Your task to perform on an android device: all mails in gmail Image 0: 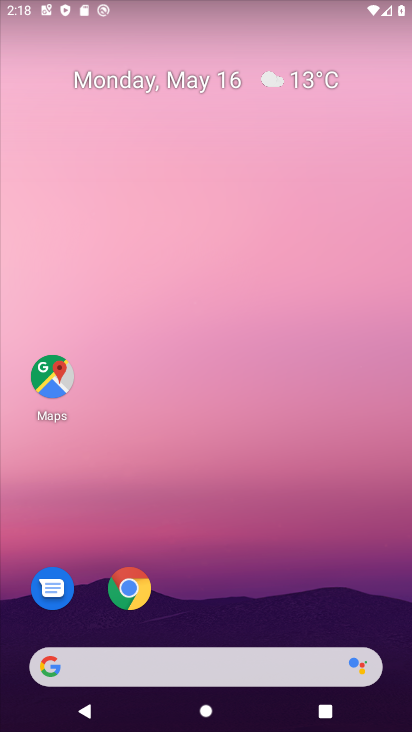
Step 0: drag from (243, 635) to (223, 16)
Your task to perform on an android device: all mails in gmail Image 1: 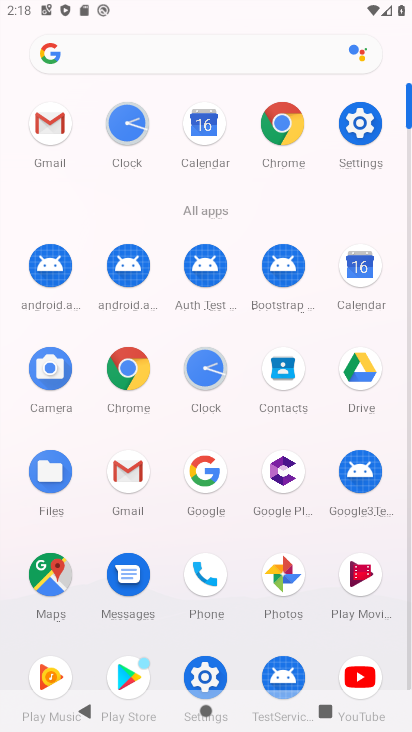
Step 1: click (128, 507)
Your task to perform on an android device: all mails in gmail Image 2: 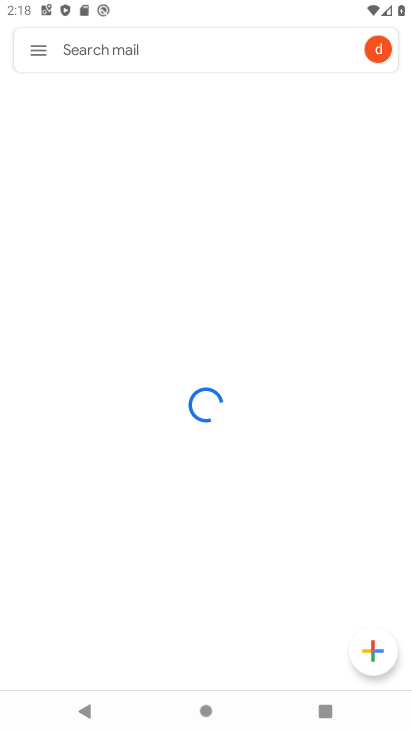
Step 2: click (40, 48)
Your task to perform on an android device: all mails in gmail Image 3: 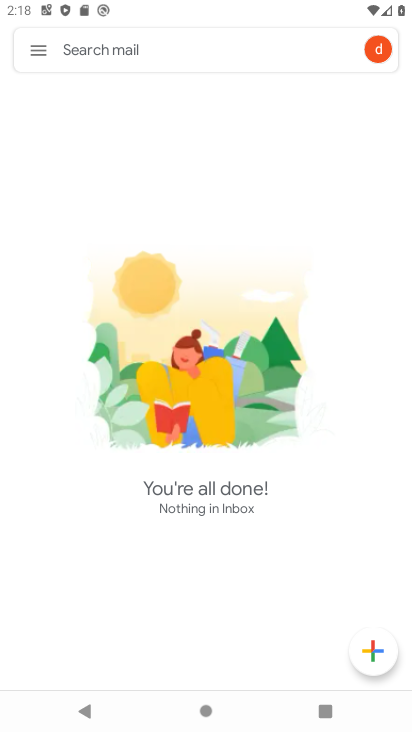
Step 3: click (32, 47)
Your task to perform on an android device: all mails in gmail Image 4: 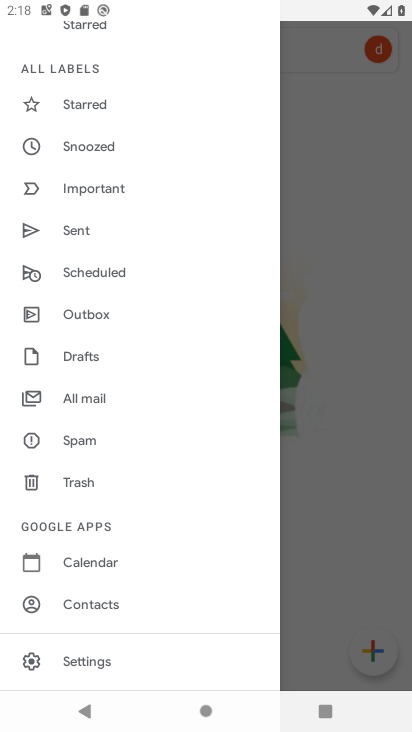
Step 4: click (103, 395)
Your task to perform on an android device: all mails in gmail Image 5: 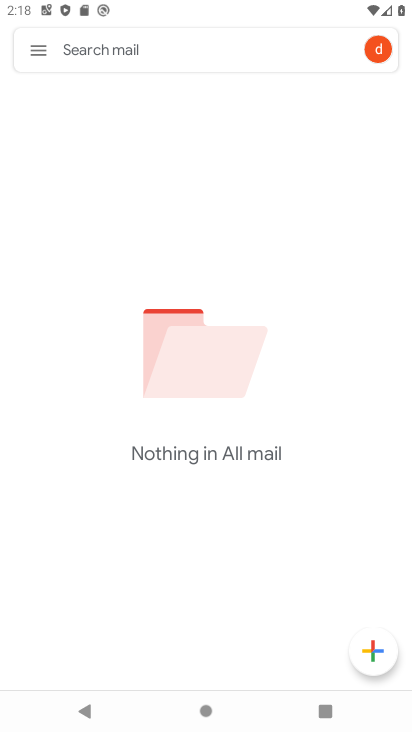
Step 5: task complete